Your task to perform on an android device: open app "Gmail" Image 0: 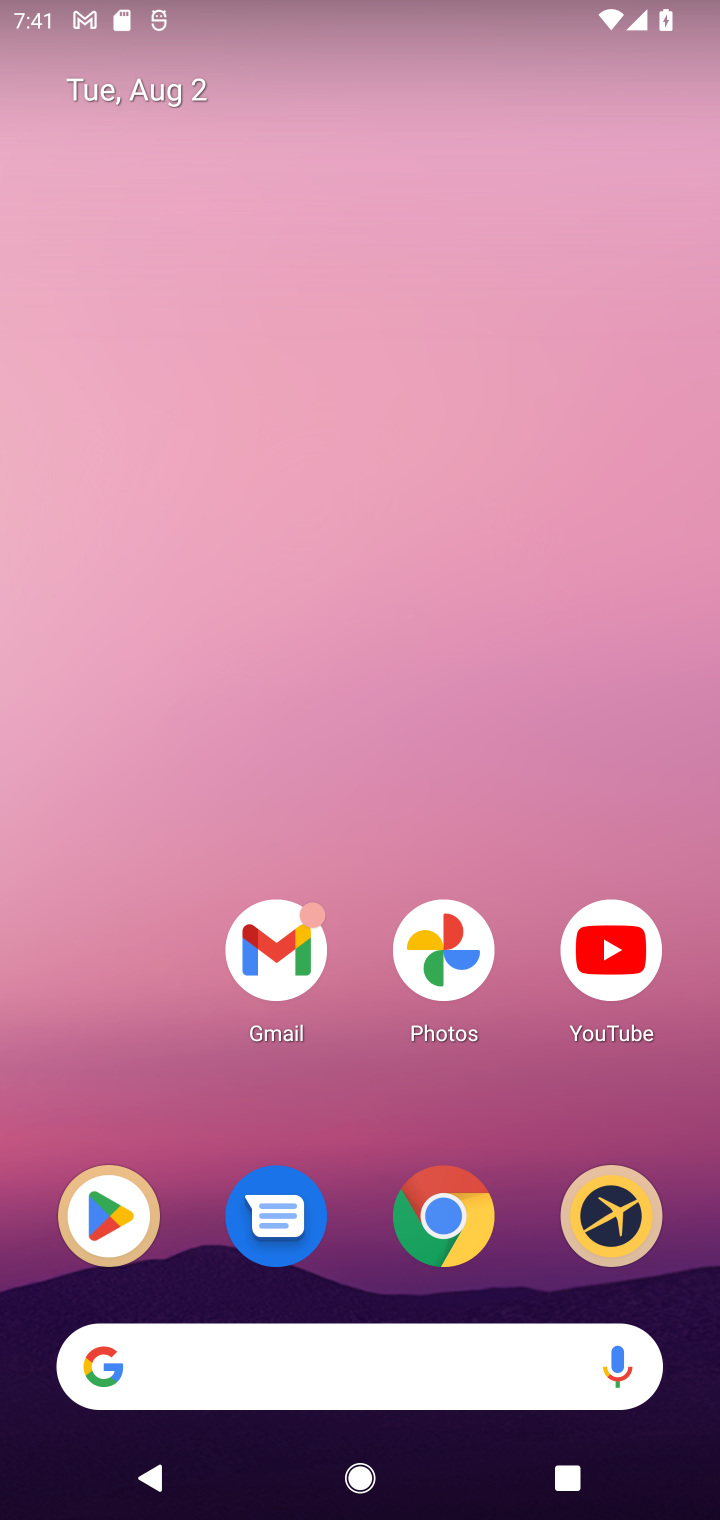
Step 0: click (98, 1223)
Your task to perform on an android device: open app "Gmail" Image 1: 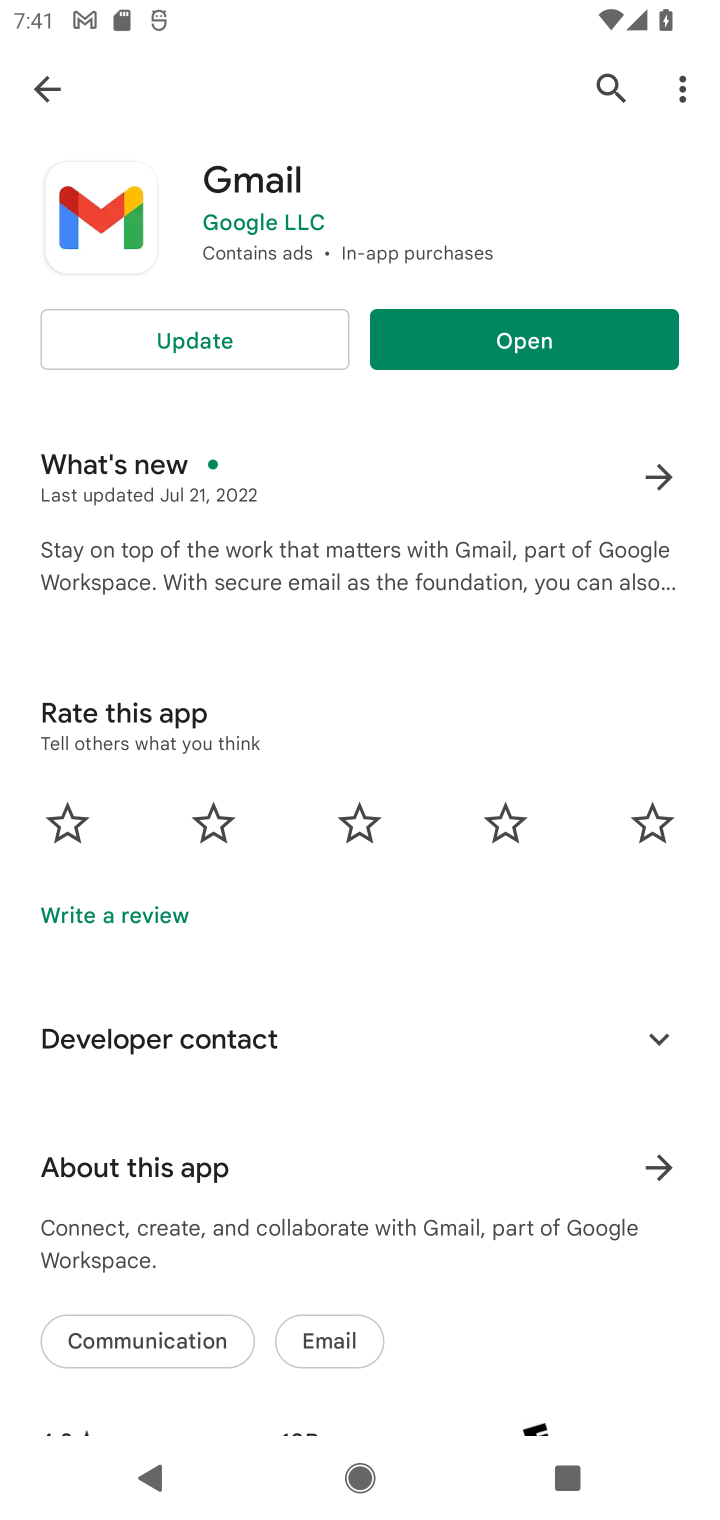
Step 1: click (470, 345)
Your task to perform on an android device: open app "Gmail" Image 2: 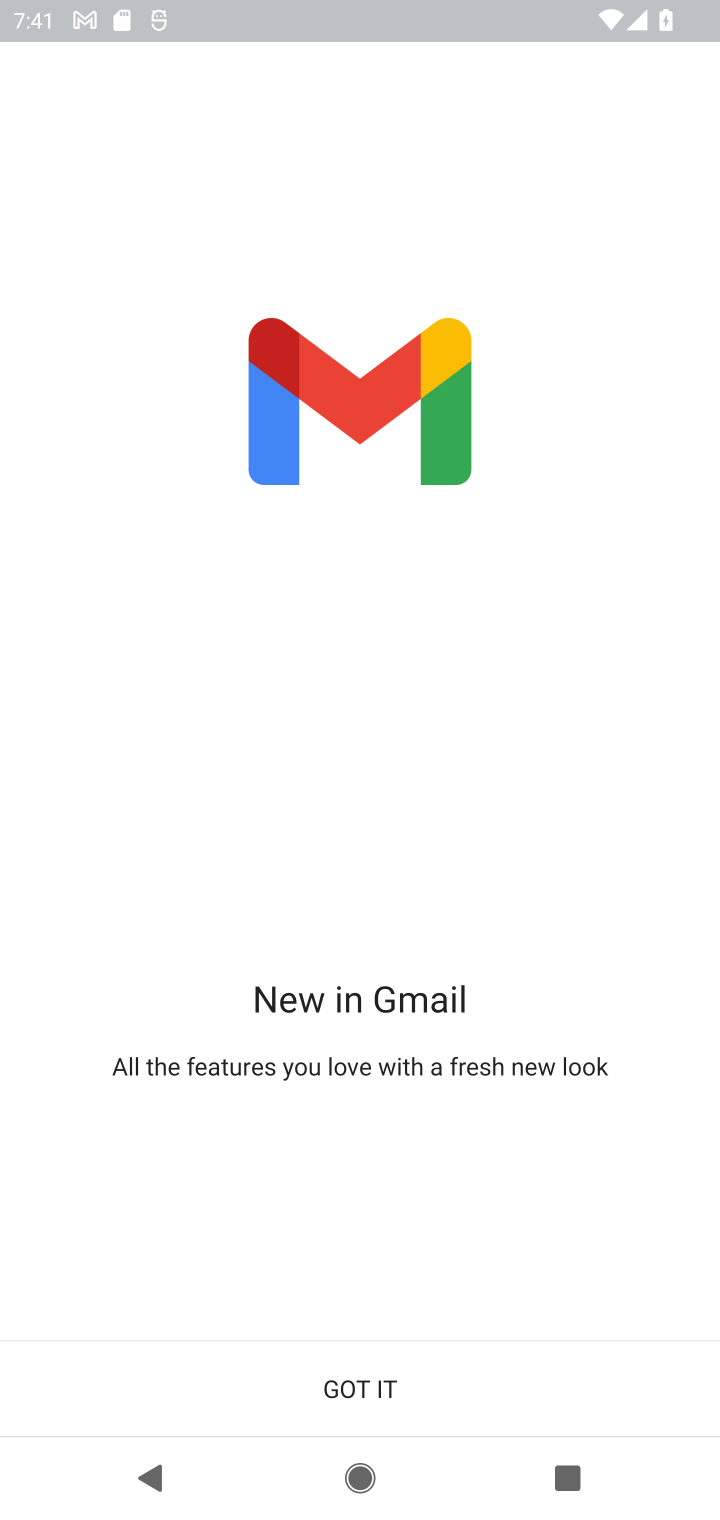
Step 2: task complete